Your task to perform on an android device: change notifications settings Image 0: 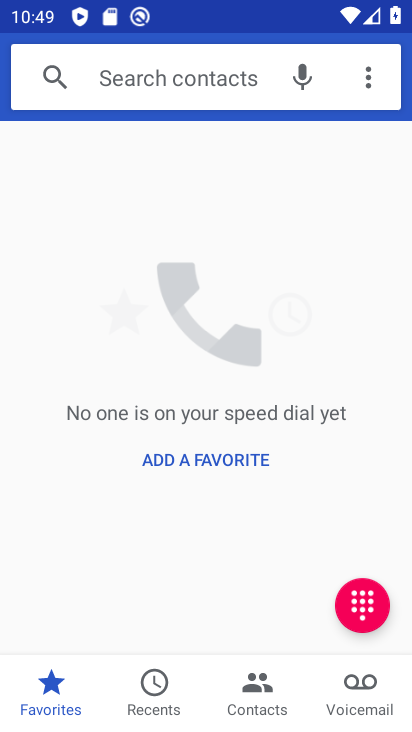
Step 0: press home button
Your task to perform on an android device: change notifications settings Image 1: 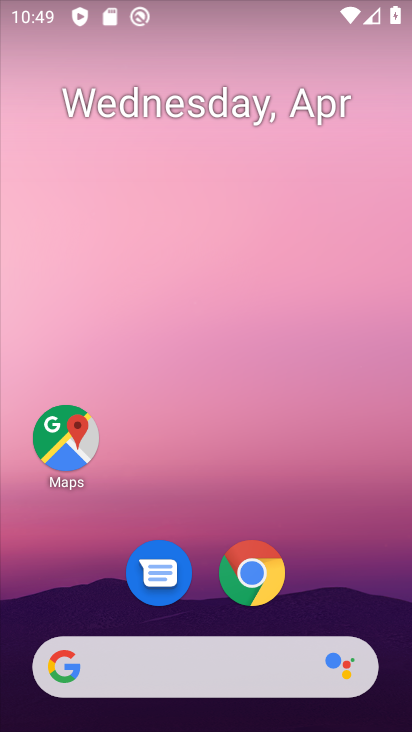
Step 1: drag from (356, 469) to (330, 7)
Your task to perform on an android device: change notifications settings Image 2: 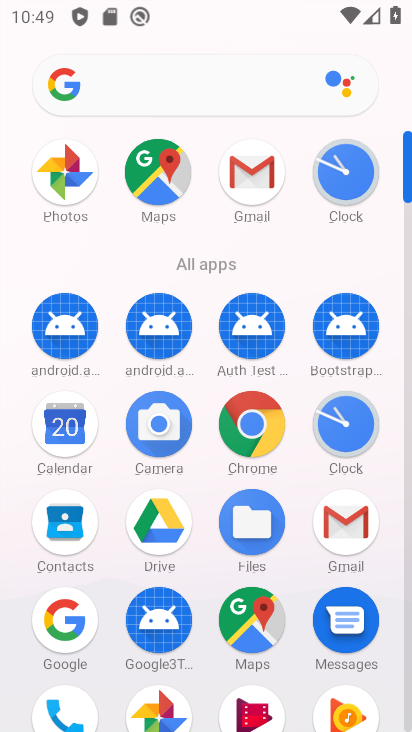
Step 2: drag from (407, 539) to (407, 486)
Your task to perform on an android device: change notifications settings Image 3: 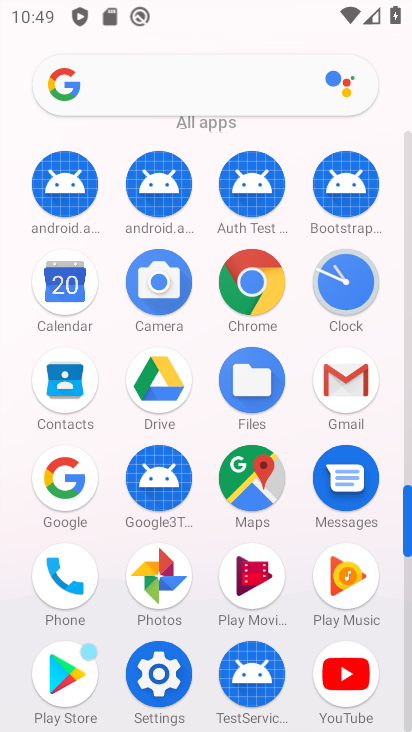
Step 3: click (145, 680)
Your task to perform on an android device: change notifications settings Image 4: 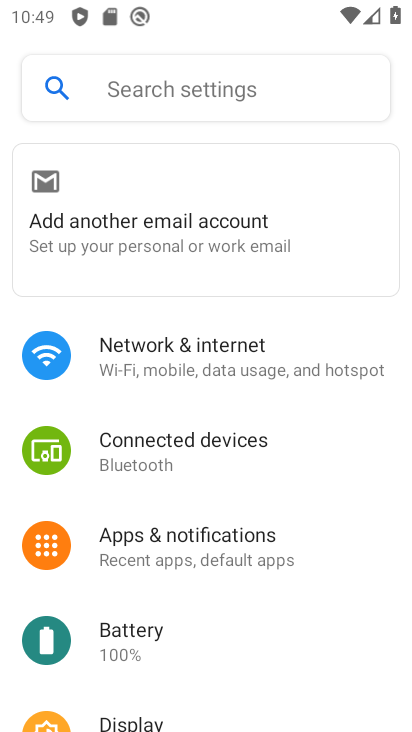
Step 4: click (222, 541)
Your task to perform on an android device: change notifications settings Image 5: 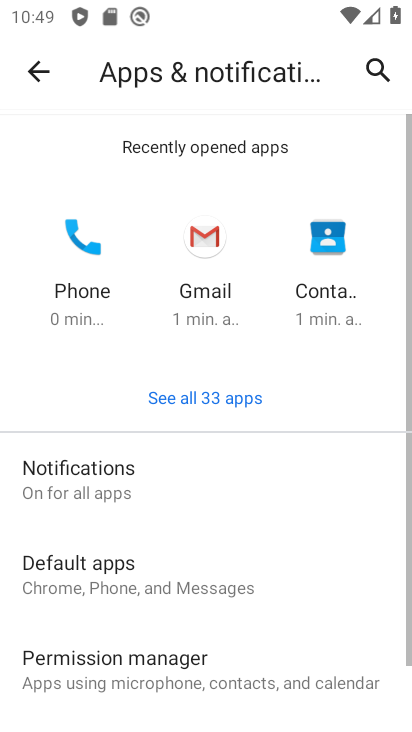
Step 5: click (43, 488)
Your task to perform on an android device: change notifications settings Image 6: 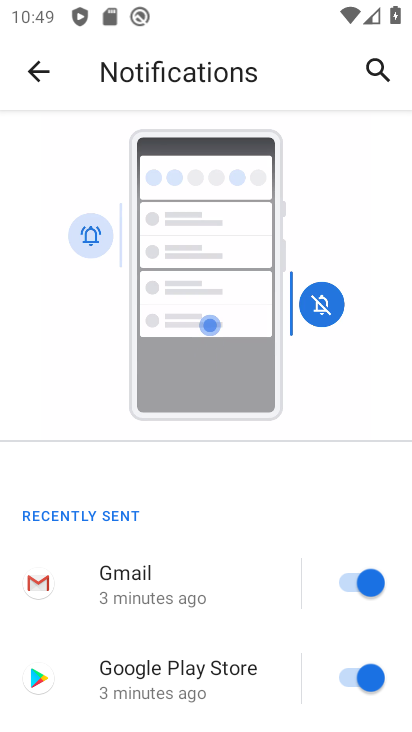
Step 6: drag from (199, 626) to (191, 221)
Your task to perform on an android device: change notifications settings Image 7: 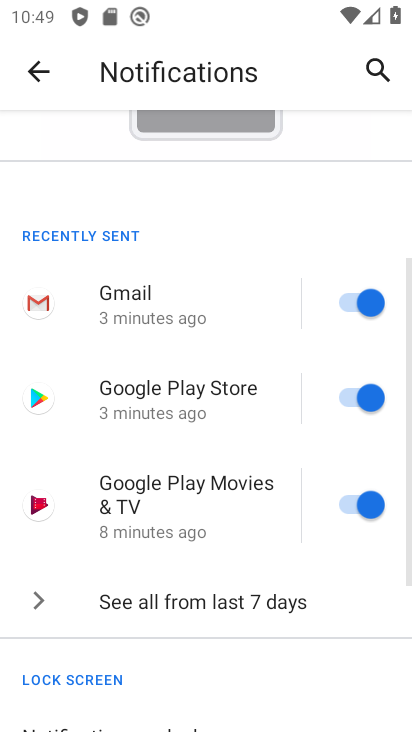
Step 7: drag from (189, 552) to (190, 154)
Your task to perform on an android device: change notifications settings Image 8: 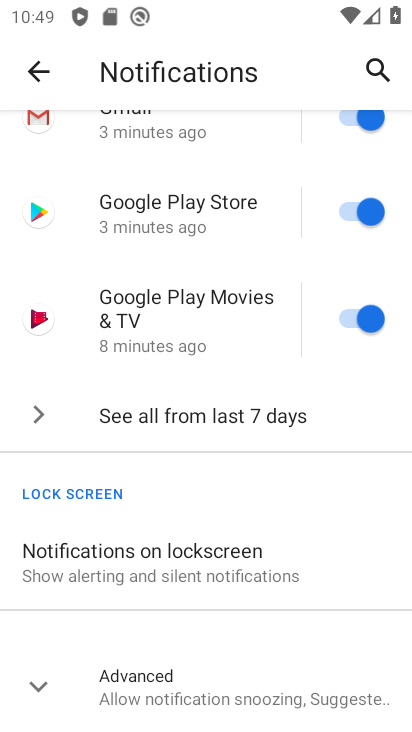
Step 8: drag from (147, 511) to (135, 233)
Your task to perform on an android device: change notifications settings Image 9: 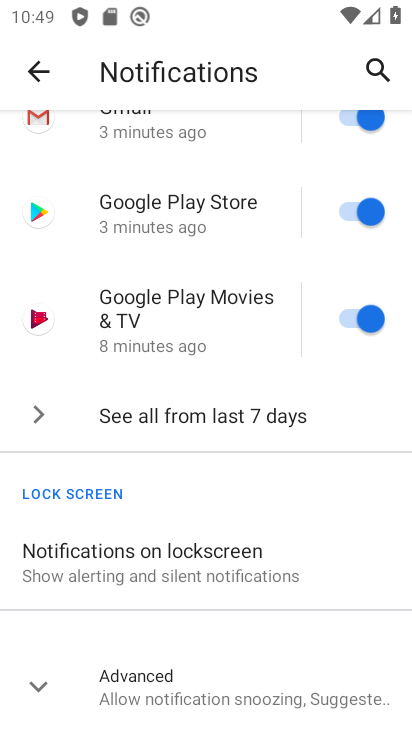
Step 9: click (164, 424)
Your task to perform on an android device: change notifications settings Image 10: 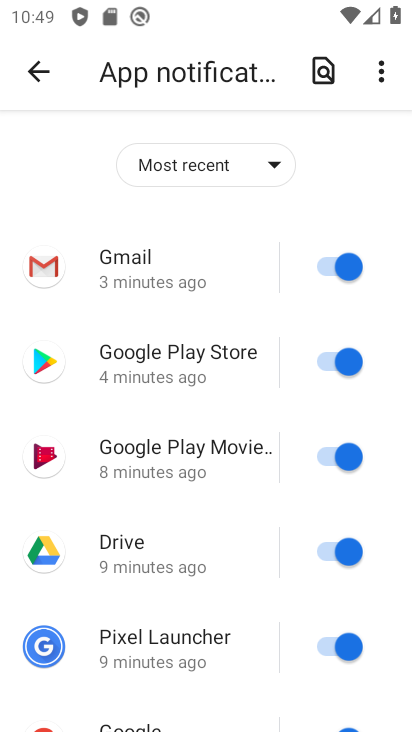
Step 10: click (275, 160)
Your task to perform on an android device: change notifications settings Image 11: 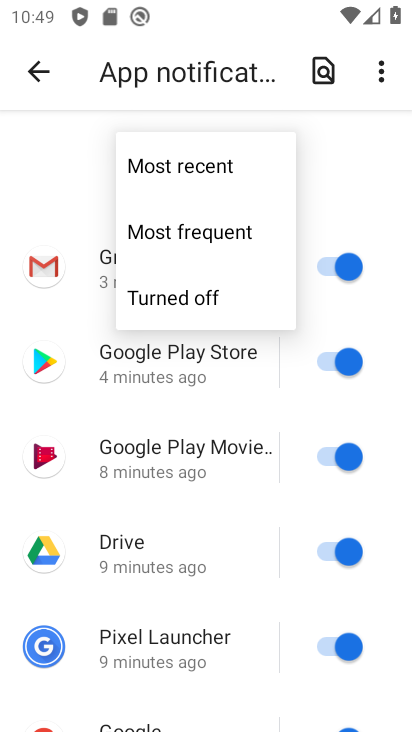
Step 11: click (166, 240)
Your task to perform on an android device: change notifications settings Image 12: 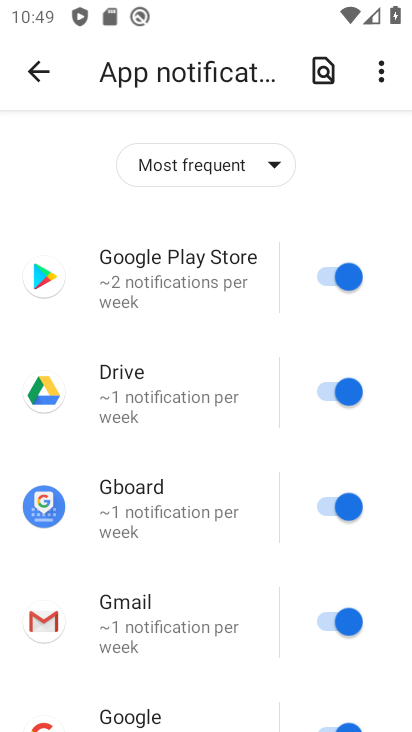
Step 12: task complete